Your task to perform on an android device: Open battery settings Image 0: 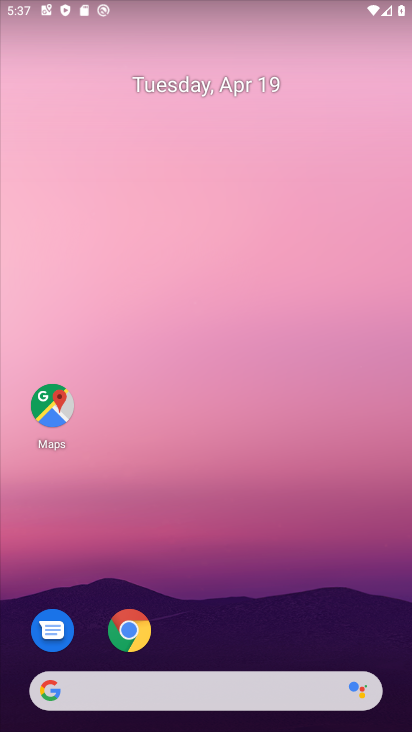
Step 0: drag from (257, 65) to (278, 520)
Your task to perform on an android device: Open battery settings Image 1: 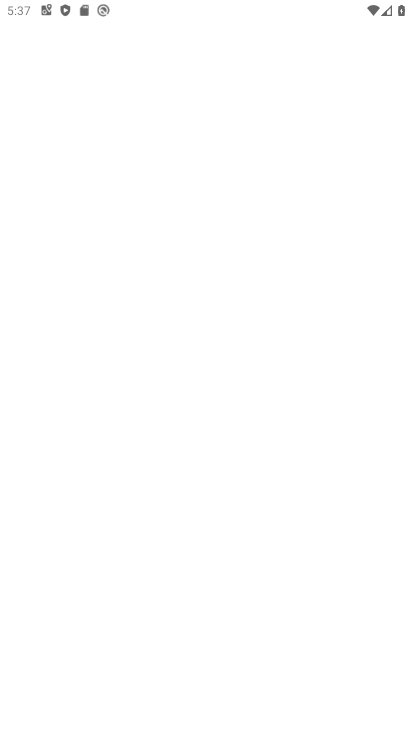
Step 1: press home button
Your task to perform on an android device: Open battery settings Image 2: 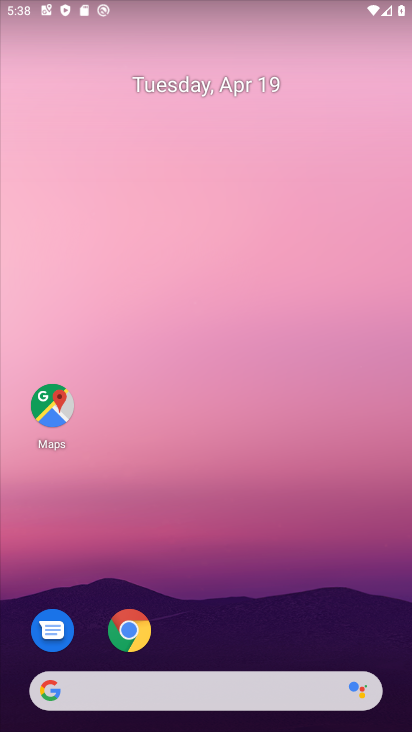
Step 2: drag from (281, 645) to (283, 347)
Your task to perform on an android device: Open battery settings Image 3: 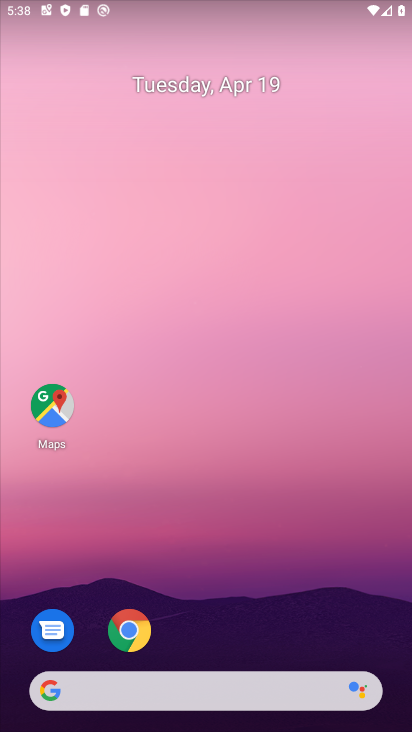
Step 3: drag from (328, 628) to (275, 30)
Your task to perform on an android device: Open battery settings Image 4: 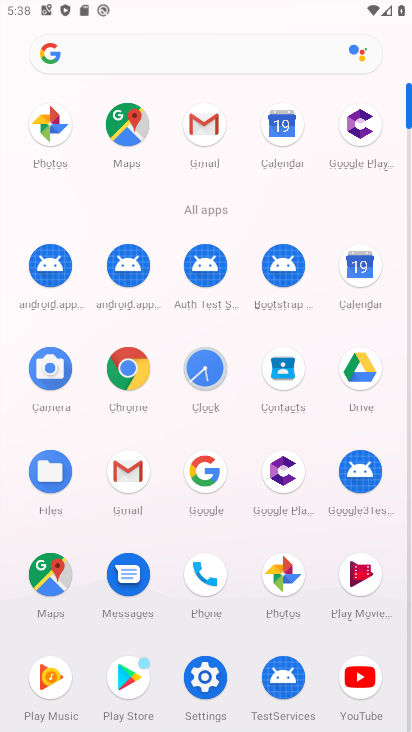
Step 4: click (200, 682)
Your task to perform on an android device: Open battery settings Image 5: 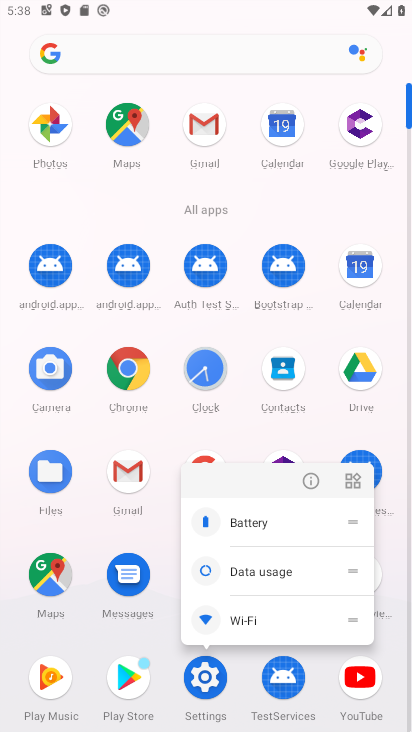
Step 5: click (202, 685)
Your task to perform on an android device: Open battery settings Image 6: 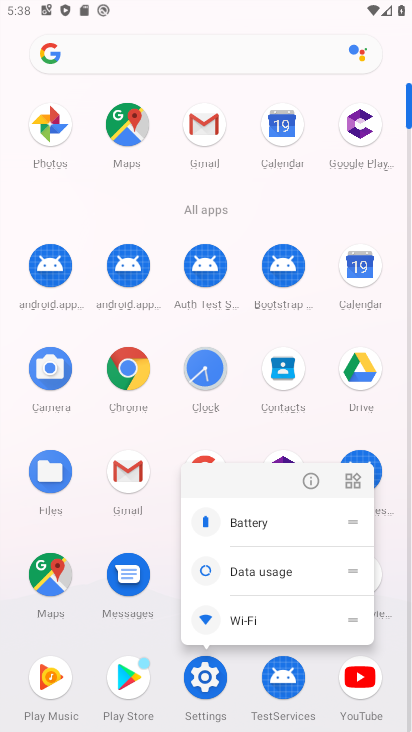
Step 6: click (213, 659)
Your task to perform on an android device: Open battery settings Image 7: 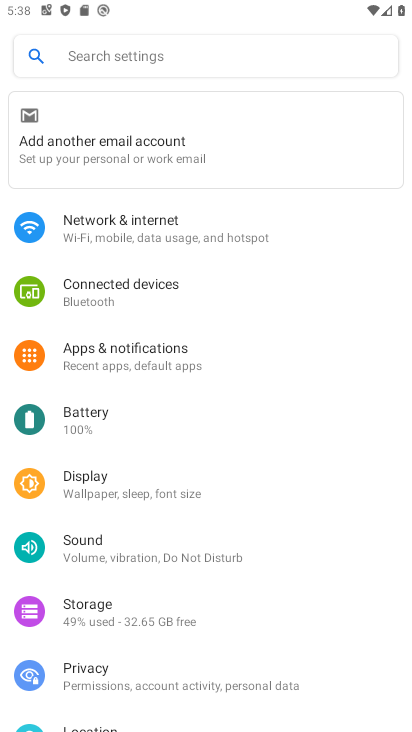
Step 7: click (104, 423)
Your task to perform on an android device: Open battery settings Image 8: 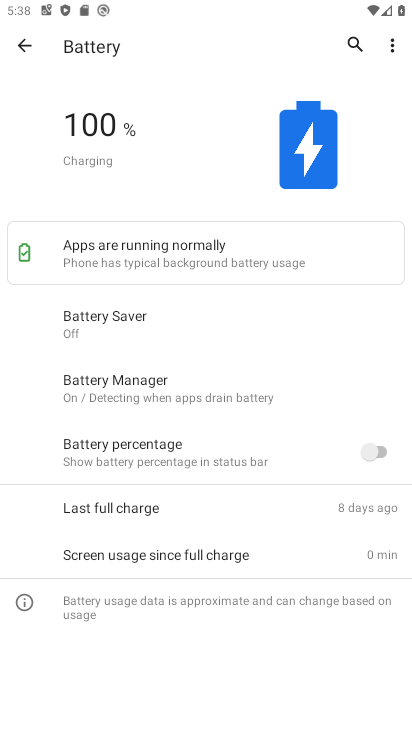
Step 8: task complete